Your task to perform on an android device: toggle notification dots Image 0: 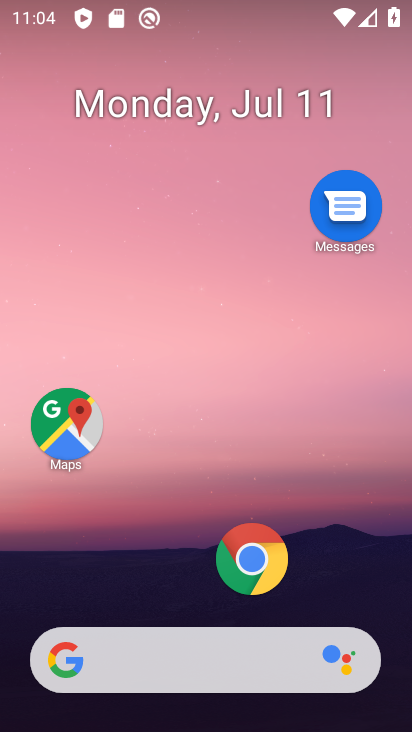
Step 0: drag from (334, 585) to (366, 128)
Your task to perform on an android device: toggle notification dots Image 1: 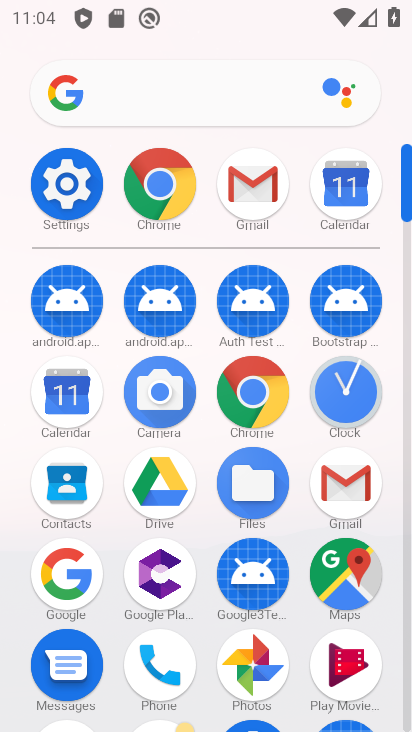
Step 1: click (71, 185)
Your task to perform on an android device: toggle notification dots Image 2: 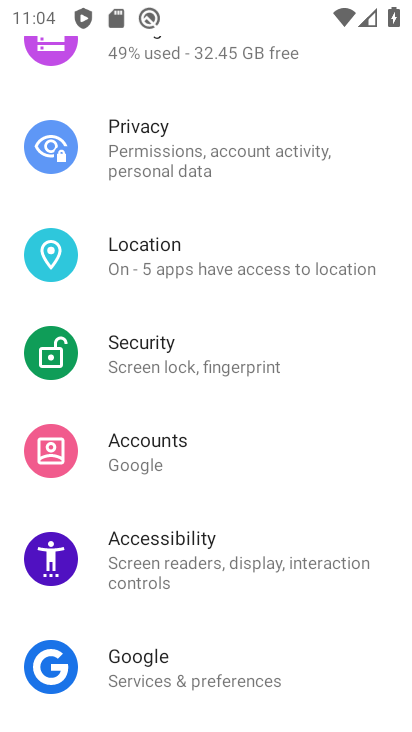
Step 2: drag from (360, 447) to (367, 548)
Your task to perform on an android device: toggle notification dots Image 3: 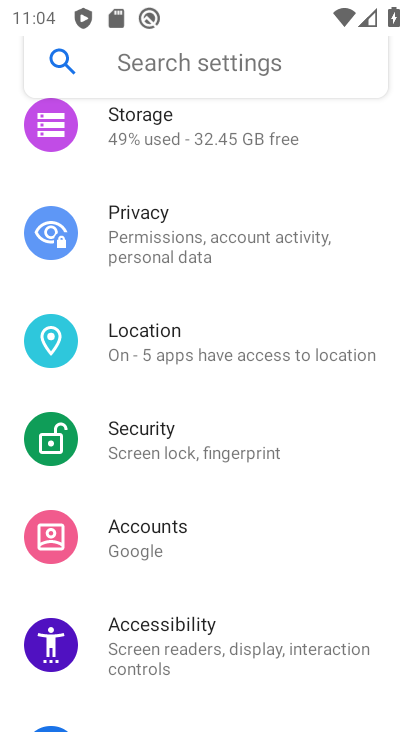
Step 3: drag from (356, 409) to (354, 494)
Your task to perform on an android device: toggle notification dots Image 4: 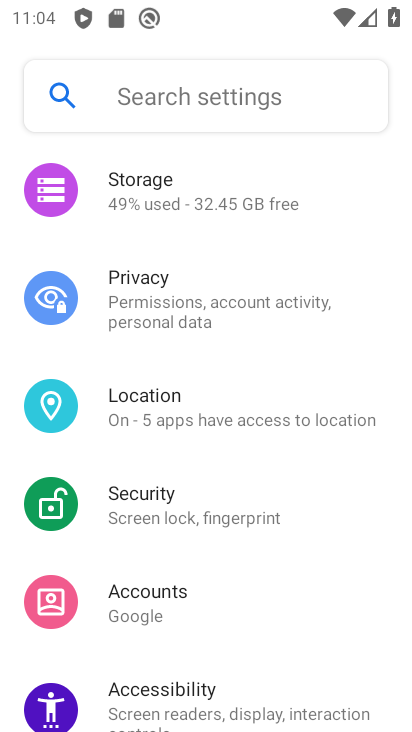
Step 4: drag from (352, 365) to (352, 479)
Your task to perform on an android device: toggle notification dots Image 5: 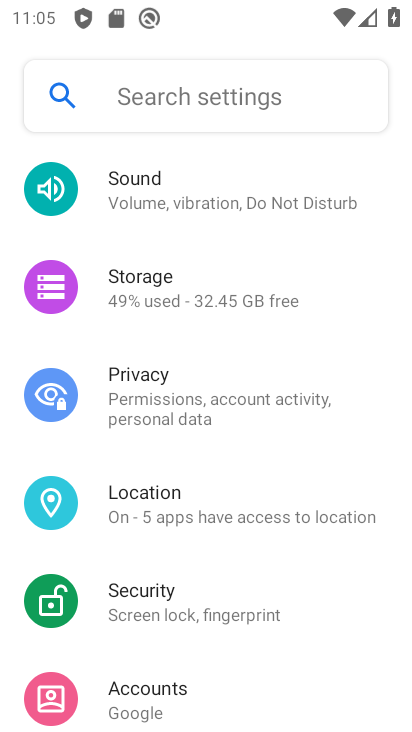
Step 5: drag from (349, 323) to (353, 444)
Your task to perform on an android device: toggle notification dots Image 6: 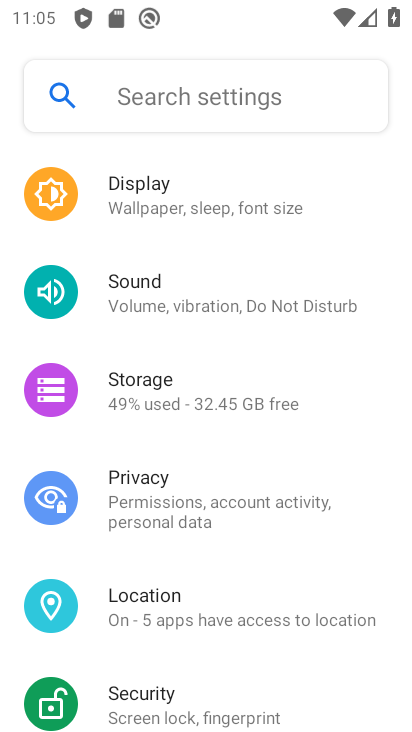
Step 6: drag from (373, 355) to (371, 448)
Your task to perform on an android device: toggle notification dots Image 7: 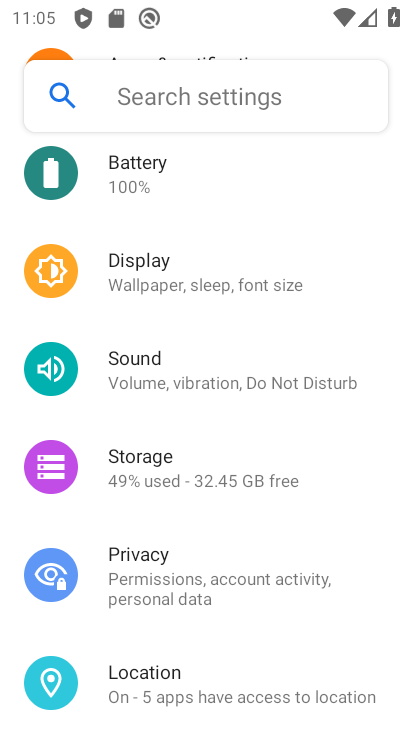
Step 7: drag from (358, 326) to (360, 440)
Your task to perform on an android device: toggle notification dots Image 8: 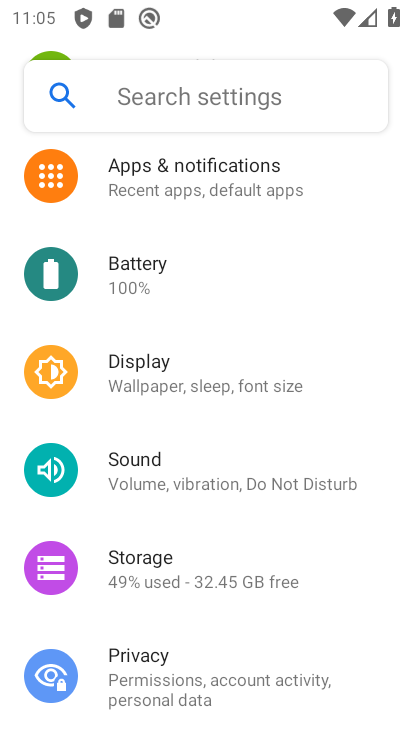
Step 8: drag from (344, 316) to (348, 423)
Your task to perform on an android device: toggle notification dots Image 9: 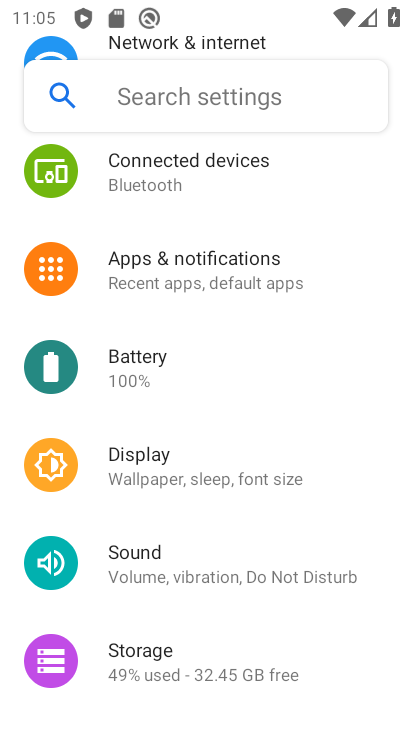
Step 9: drag from (375, 249) to (370, 454)
Your task to perform on an android device: toggle notification dots Image 10: 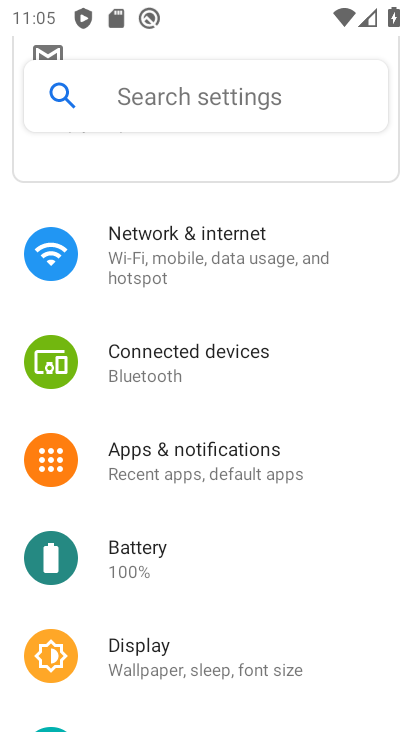
Step 10: click (249, 471)
Your task to perform on an android device: toggle notification dots Image 11: 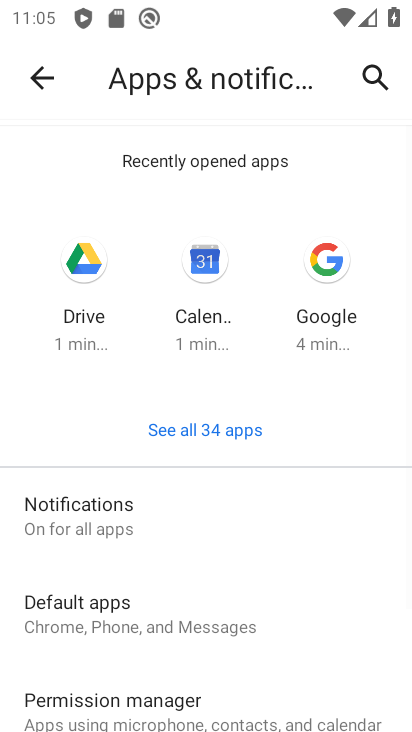
Step 11: click (148, 532)
Your task to perform on an android device: toggle notification dots Image 12: 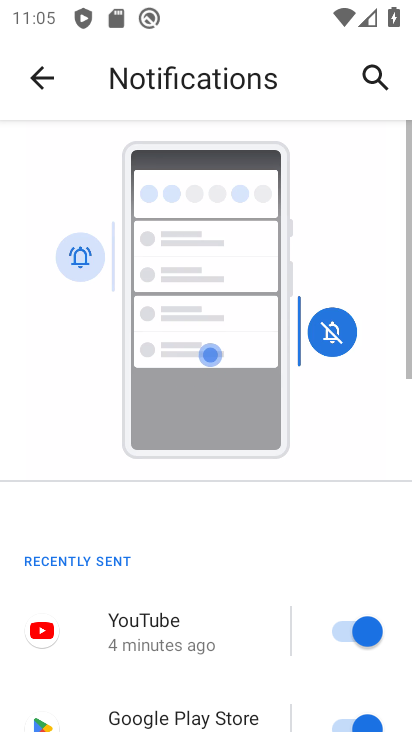
Step 12: drag from (323, 511) to (327, 411)
Your task to perform on an android device: toggle notification dots Image 13: 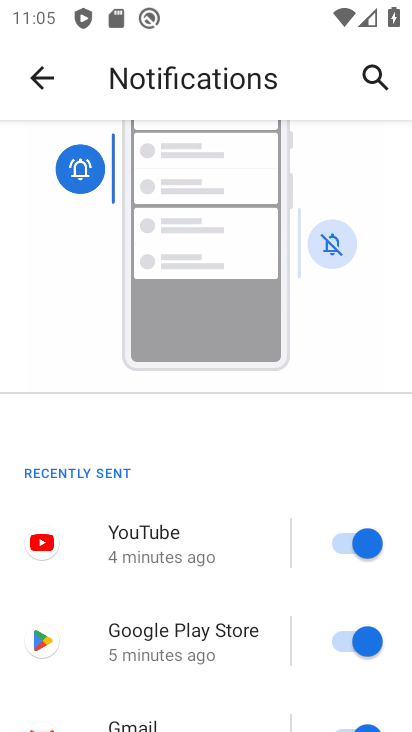
Step 13: drag from (296, 575) to (268, 415)
Your task to perform on an android device: toggle notification dots Image 14: 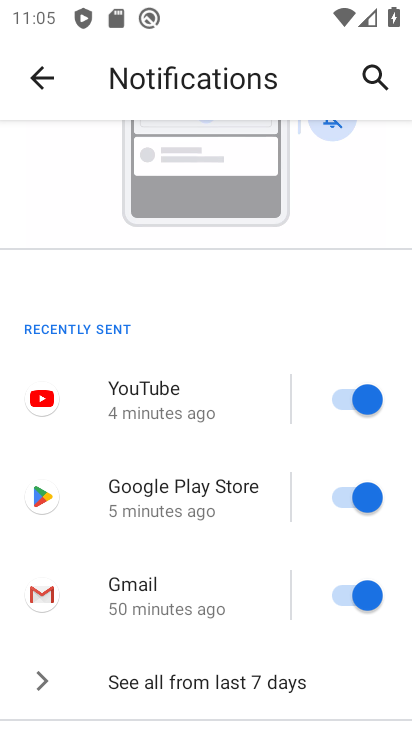
Step 14: drag from (273, 508) to (274, 435)
Your task to perform on an android device: toggle notification dots Image 15: 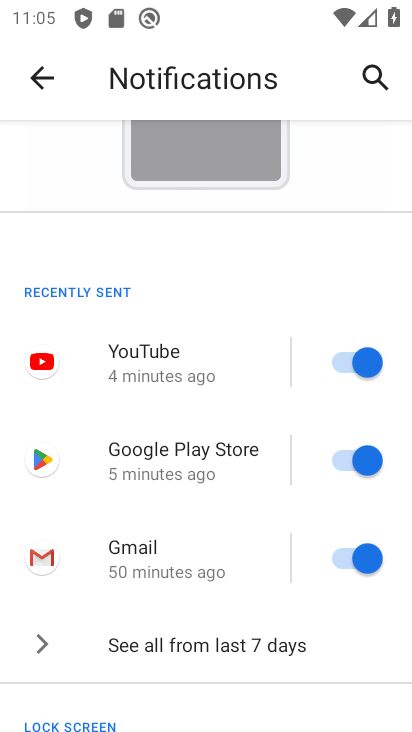
Step 15: drag from (256, 499) to (250, 363)
Your task to perform on an android device: toggle notification dots Image 16: 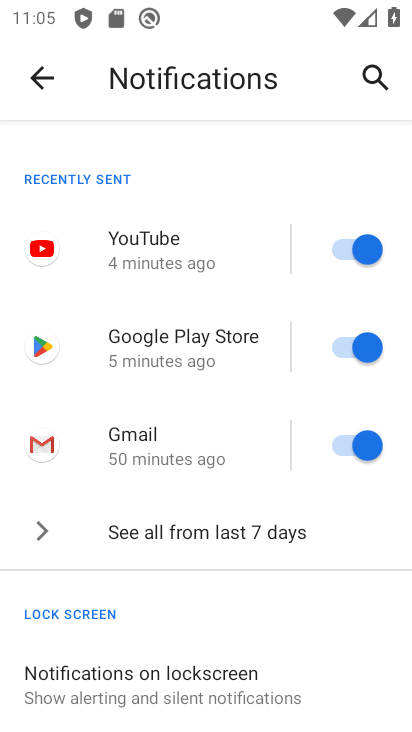
Step 16: drag from (263, 546) to (265, 454)
Your task to perform on an android device: toggle notification dots Image 17: 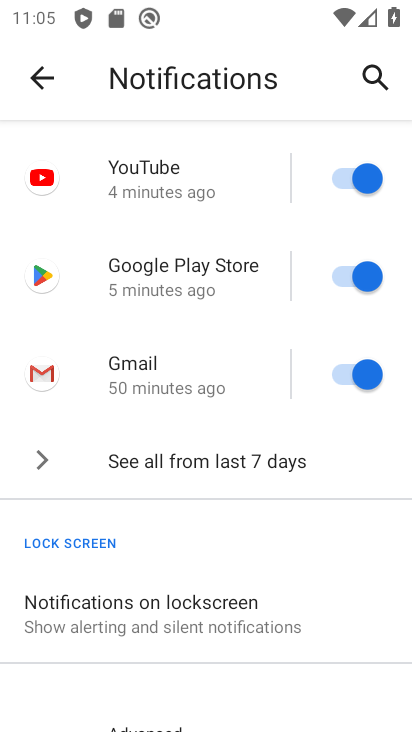
Step 17: drag from (275, 545) to (275, 476)
Your task to perform on an android device: toggle notification dots Image 18: 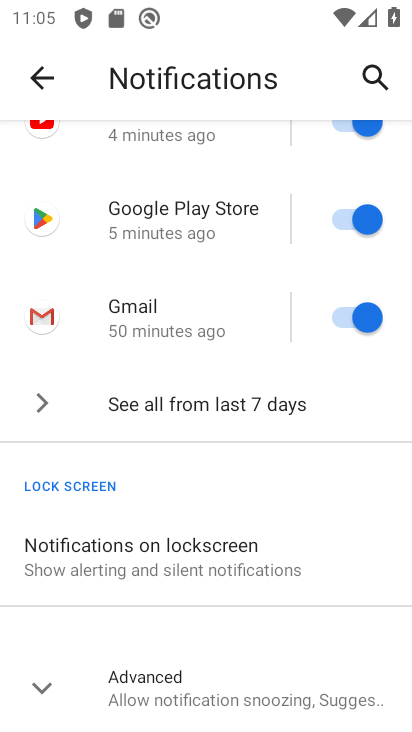
Step 18: click (287, 674)
Your task to perform on an android device: toggle notification dots Image 19: 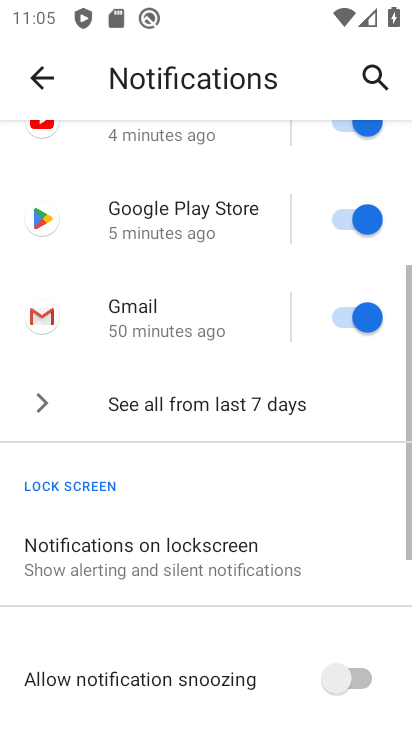
Step 19: drag from (305, 633) to (309, 529)
Your task to perform on an android device: toggle notification dots Image 20: 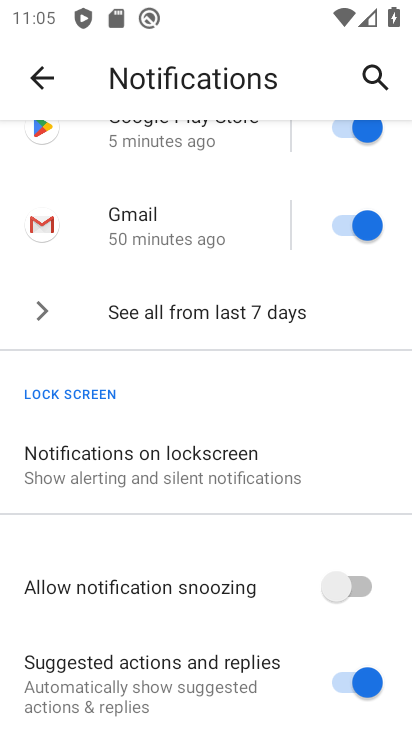
Step 20: drag from (307, 621) to (289, 488)
Your task to perform on an android device: toggle notification dots Image 21: 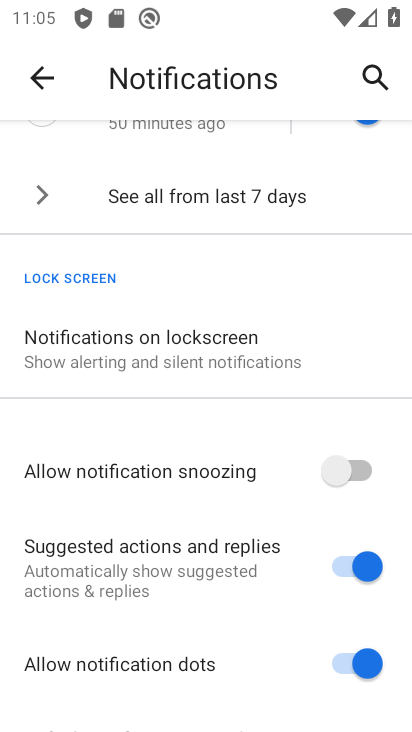
Step 21: drag from (290, 600) to (289, 492)
Your task to perform on an android device: toggle notification dots Image 22: 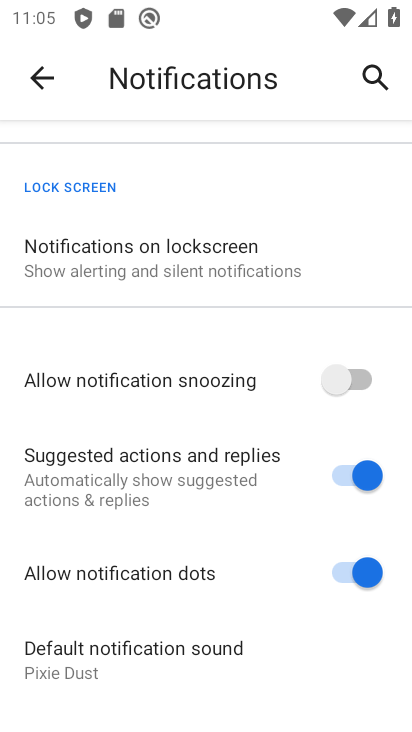
Step 22: click (359, 570)
Your task to perform on an android device: toggle notification dots Image 23: 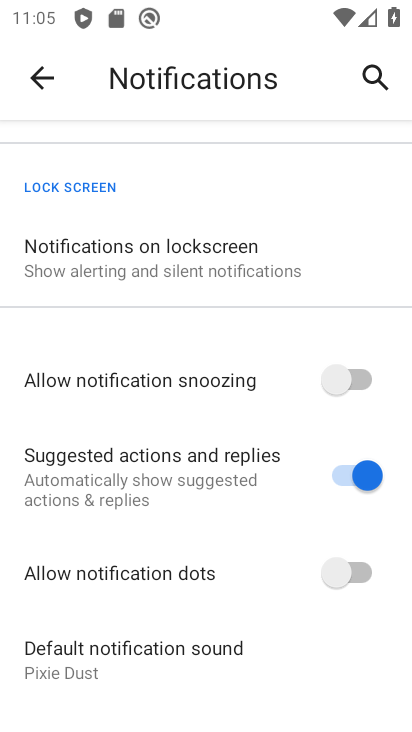
Step 23: task complete